Your task to perform on an android device: Search for sushi restaurants on Maps Image 0: 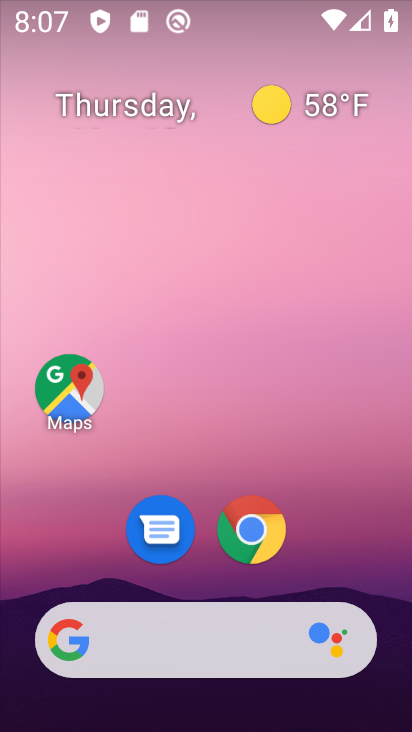
Step 0: click (67, 392)
Your task to perform on an android device: Search for sushi restaurants on Maps Image 1: 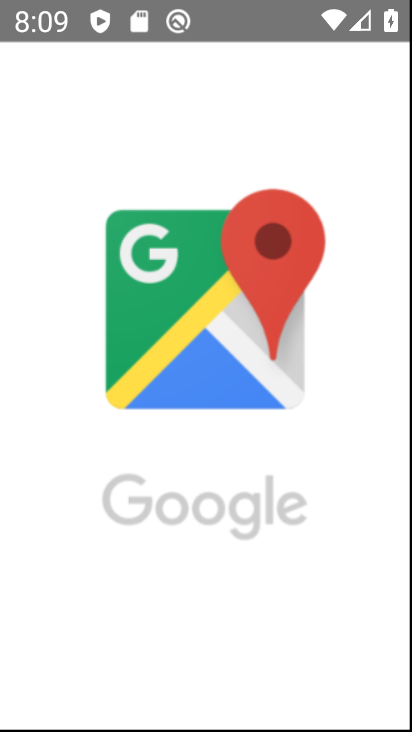
Step 1: task complete